Your task to perform on an android device: move a message to another label in the gmail app Image 0: 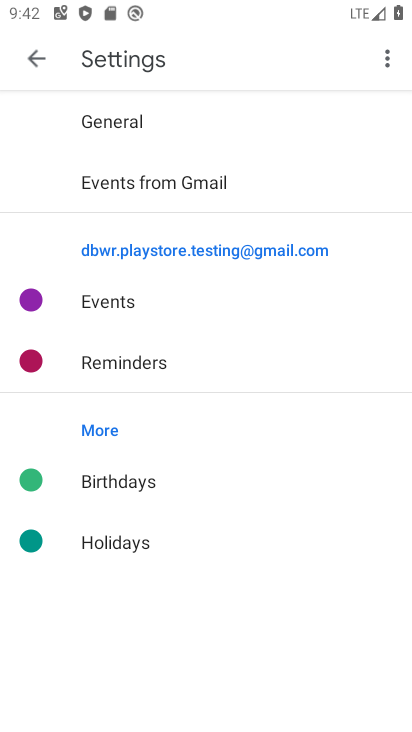
Step 0: press home button
Your task to perform on an android device: move a message to another label in the gmail app Image 1: 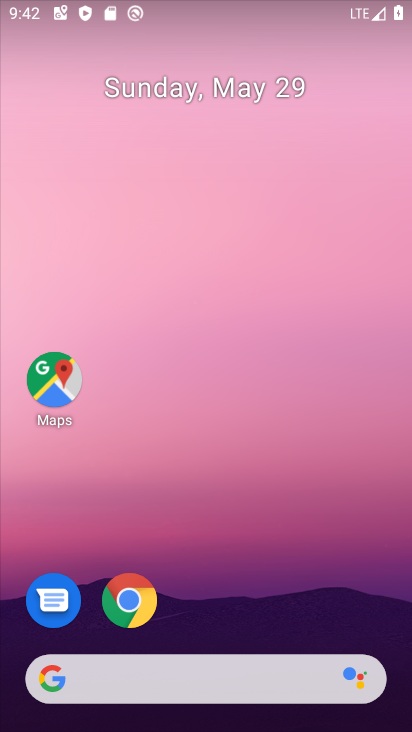
Step 1: drag from (257, 576) to (272, 130)
Your task to perform on an android device: move a message to another label in the gmail app Image 2: 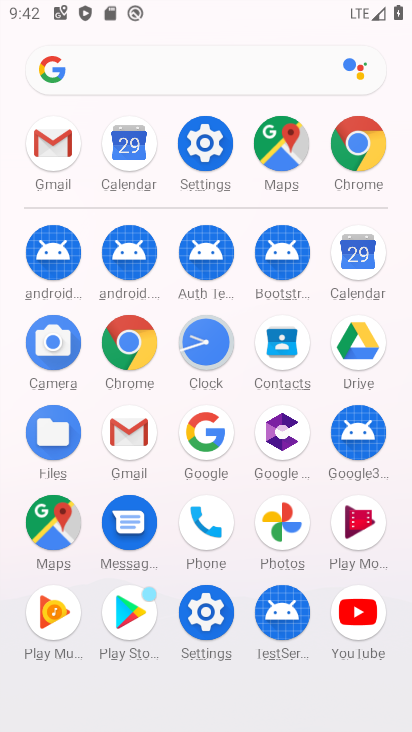
Step 2: click (46, 136)
Your task to perform on an android device: move a message to another label in the gmail app Image 3: 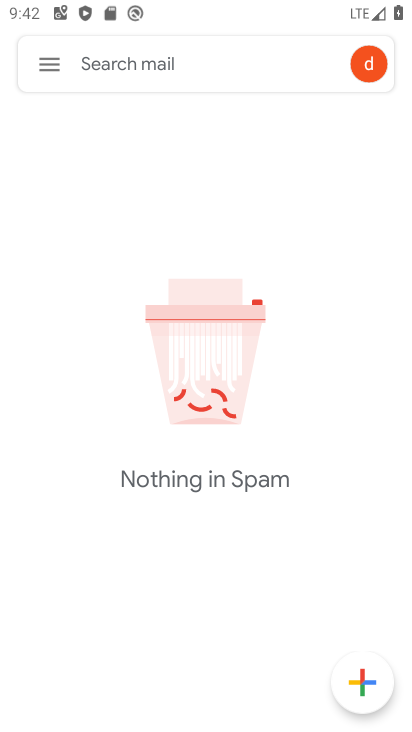
Step 3: click (39, 70)
Your task to perform on an android device: move a message to another label in the gmail app Image 4: 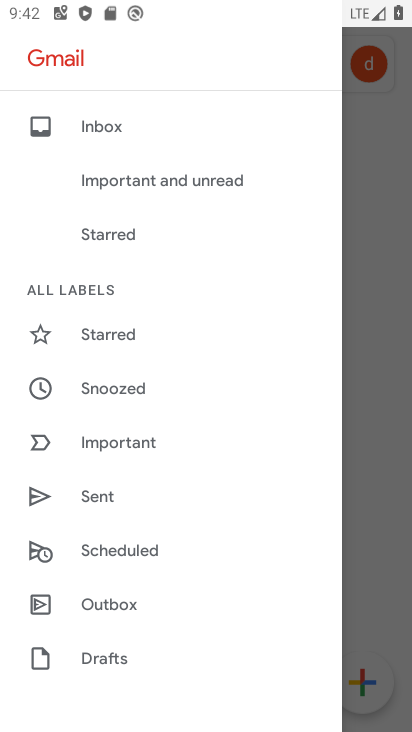
Step 4: click (107, 127)
Your task to perform on an android device: move a message to another label in the gmail app Image 5: 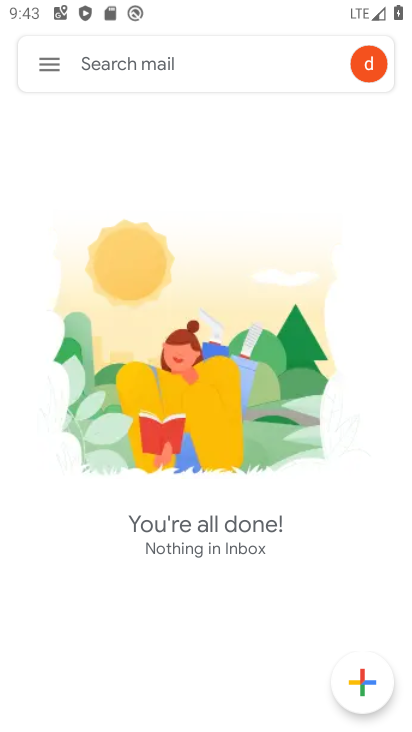
Step 5: task complete